Your task to perform on an android device: turn on data saver in the chrome app Image 0: 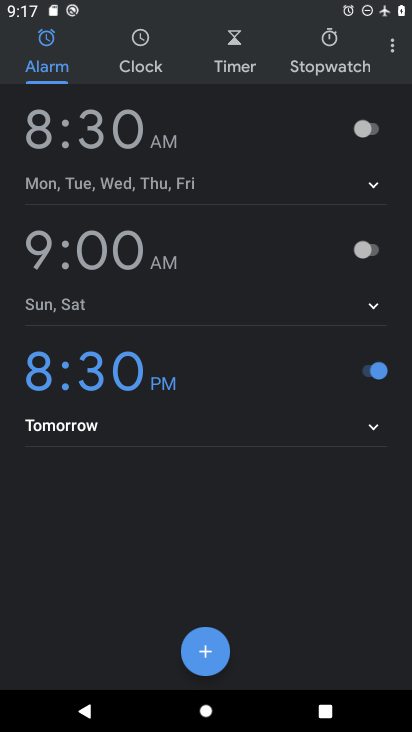
Step 0: press home button
Your task to perform on an android device: turn on data saver in the chrome app Image 1: 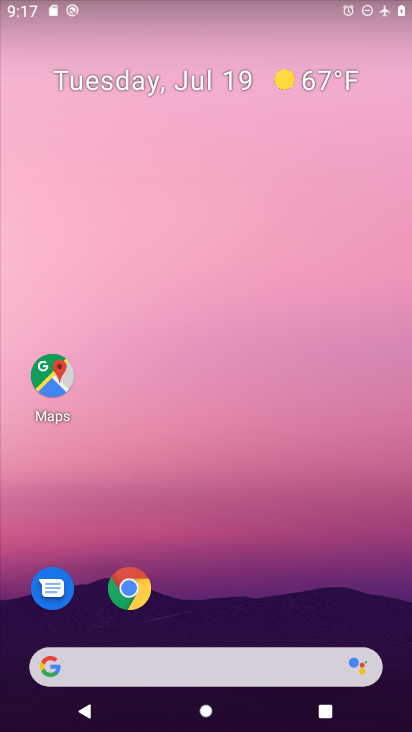
Step 1: drag from (308, 596) to (335, 101)
Your task to perform on an android device: turn on data saver in the chrome app Image 2: 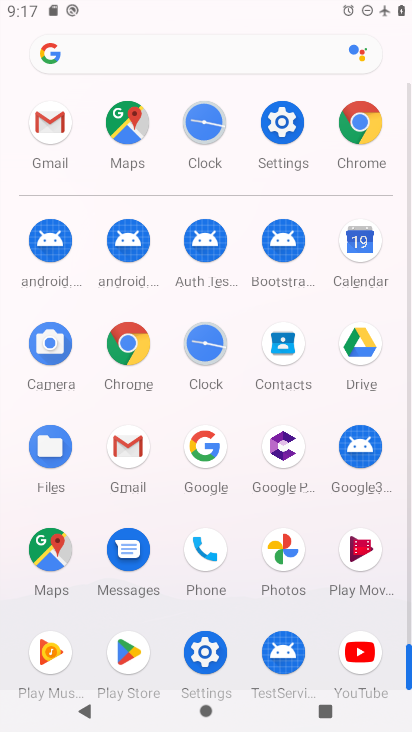
Step 2: click (137, 341)
Your task to perform on an android device: turn on data saver in the chrome app Image 3: 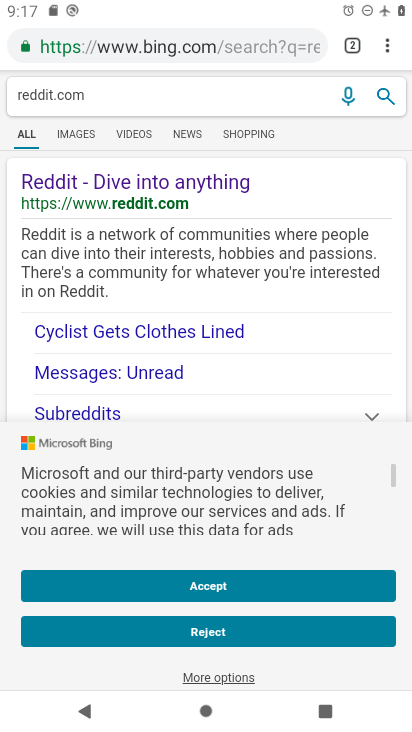
Step 3: click (386, 49)
Your task to perform on an android device: turn on data saver in the chrome app Image 4: 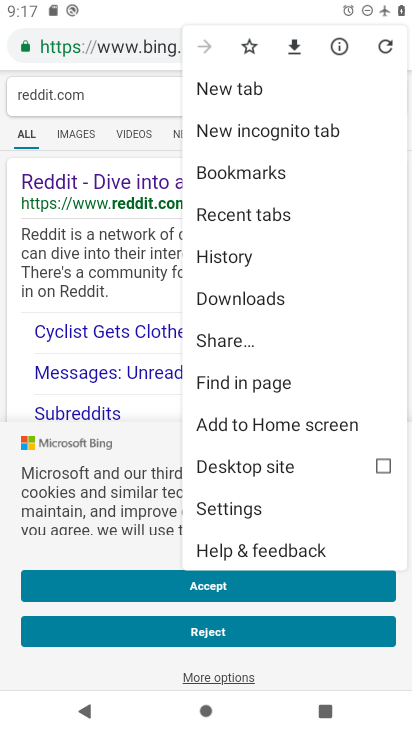
Step 4: click (269, 519)
Your task to perform on an android device: turn on data saver in the chrome app Image 5: 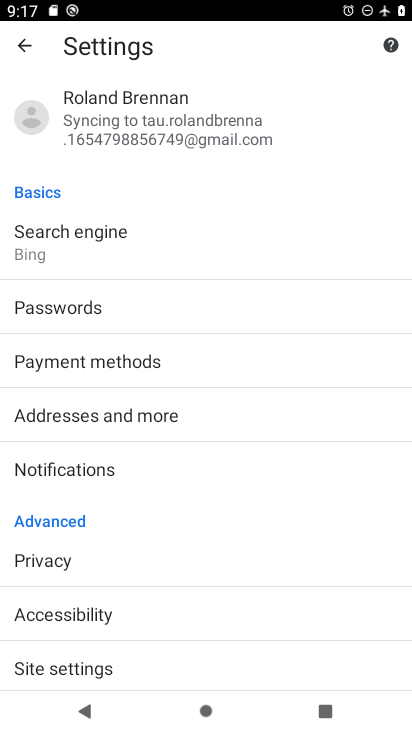
Step 5: drag from (289, 569) to (313, 442)
Your task to perform on an android device: turn on data saver in the chrome app Image 6: 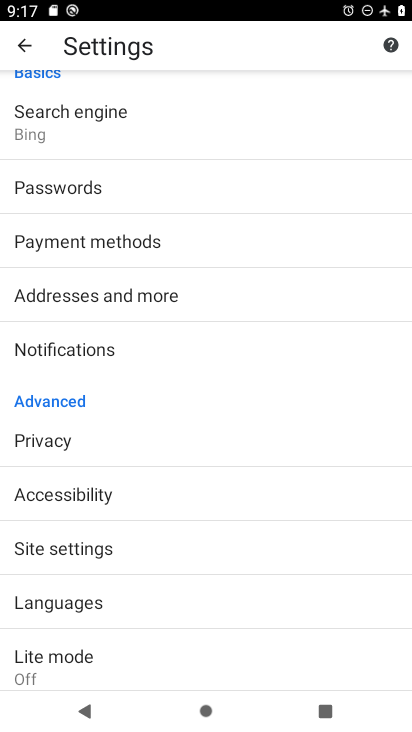
Step 6: drag from (315, 564) to (325, 450)
Your task to perform on an android device: turn on data saver in the chrome app Image 7: 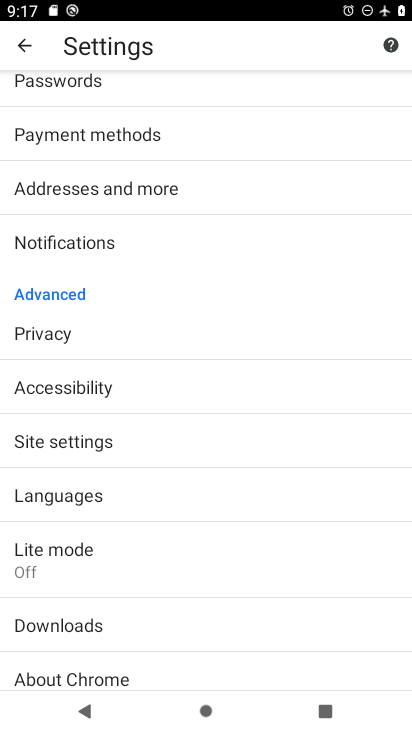
Step 7: click (307, 550)
Your task to perform on an android device: turn on data saver in the chrome app Image 8: 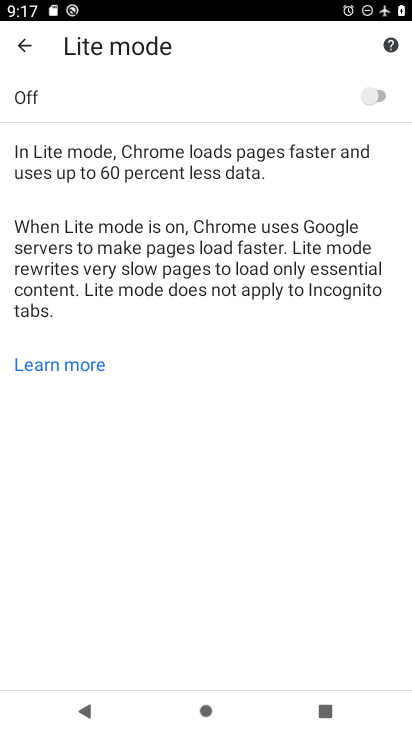
Step 8: click (365, 110)
Your task to perform on an android device: turn on data saver in the chrome app Image 9: 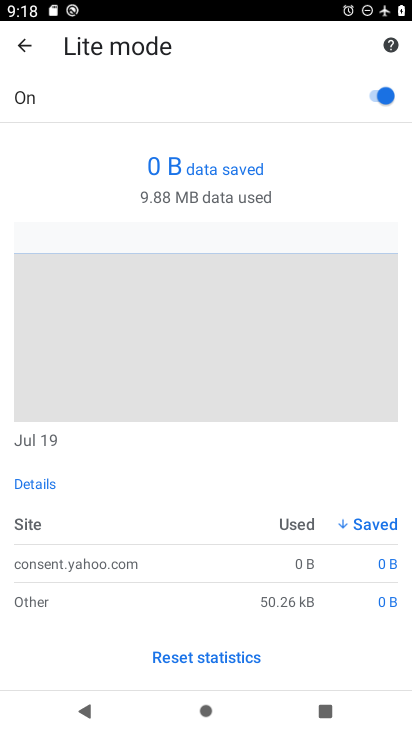
Step 9: task complete